Your task to perform on an android device: change the clock style Image 0: 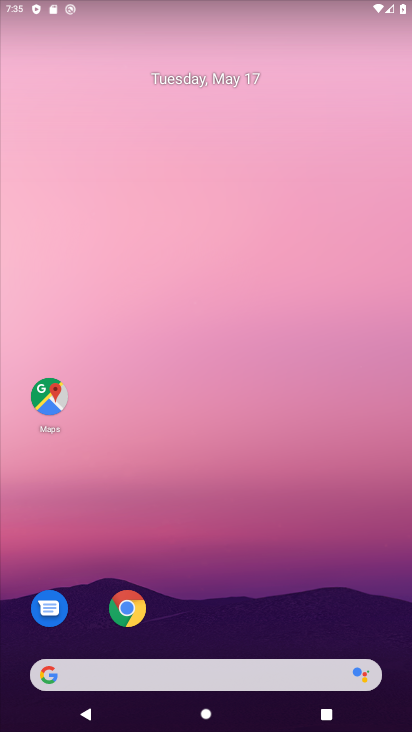
Step 0: drag from (242, 620) to (263, 327)
Your task to perform on an android device: change the clock style Image 1: 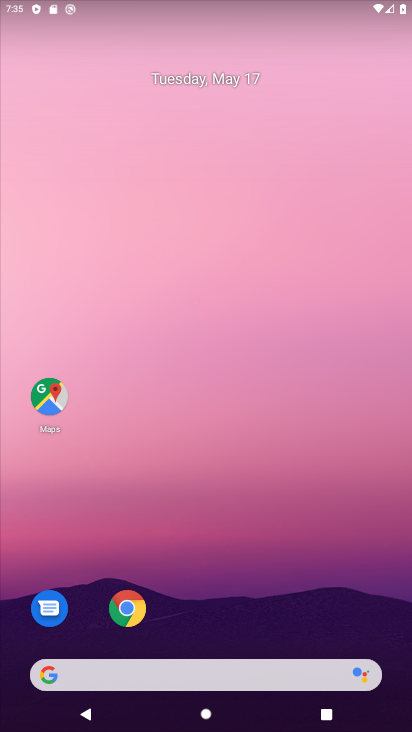
Step 1: drag from (166, 621) to (262, 75)
Your task to perform on an android device: change the clock style Image 2: 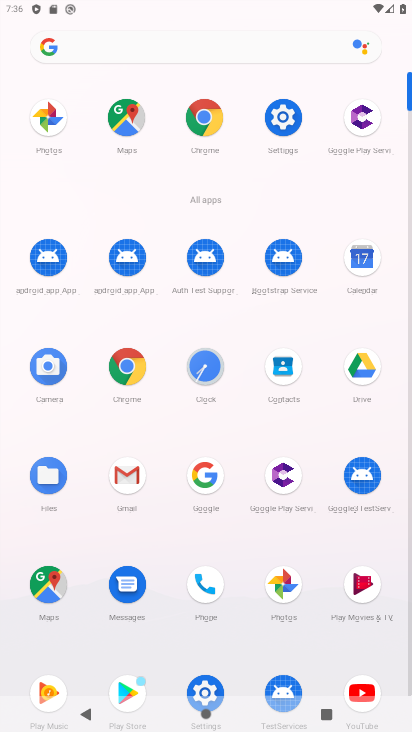
Step 2: click (203, 375)
Your task to perform on an android device: change the clock style Image 3: 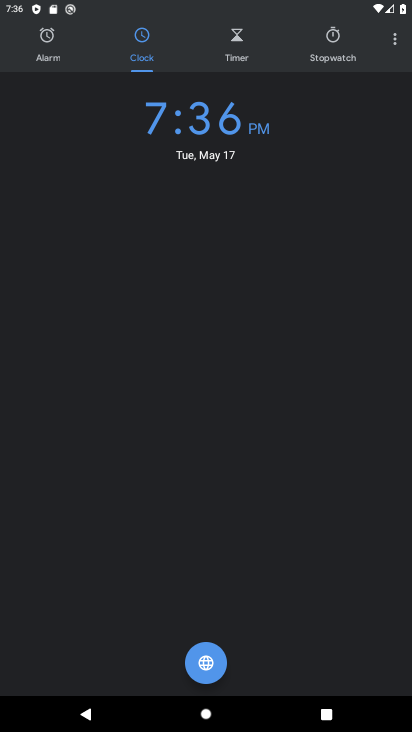
Step 3: click (397, 39)
Your task to perform on an android device: change the clock style Image 4: 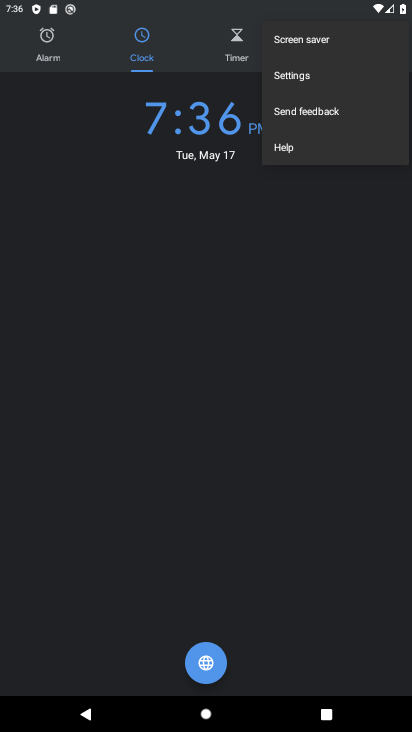
Step 4: click (311, 83)
Your task to perform on an android device: change the clock style Image 5: 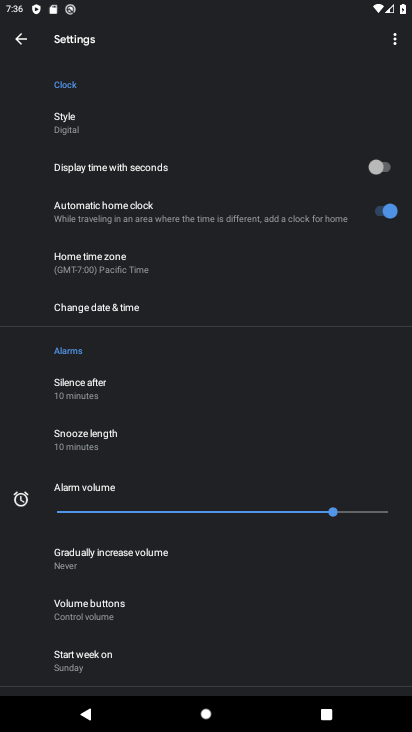
Step 5: click (78, 127)
Your task to perform on an android device: change the clock style Image 6: 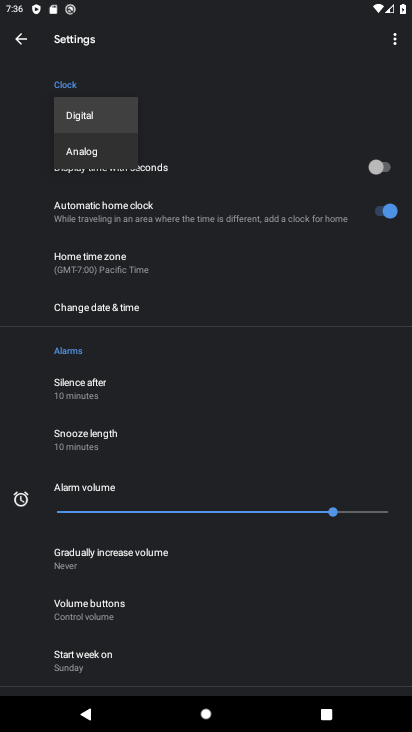
Step 6: click (93, 149)
Your task to perform on an android device: change the clock style Image 7: 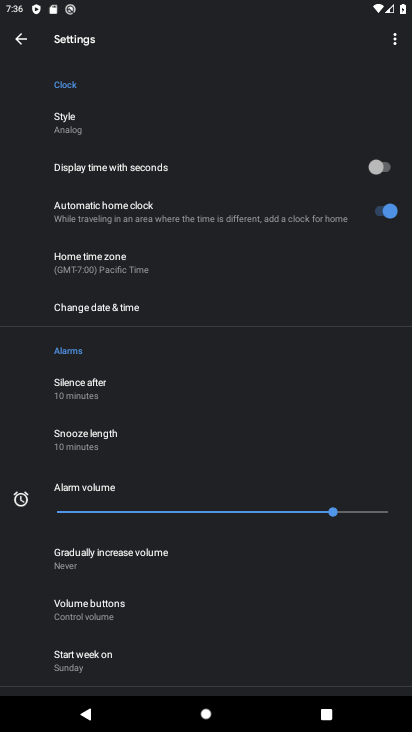
Step 7: task complete